Your task to perform on an android device: see tabs open on other devices in the chrome app Image 0: 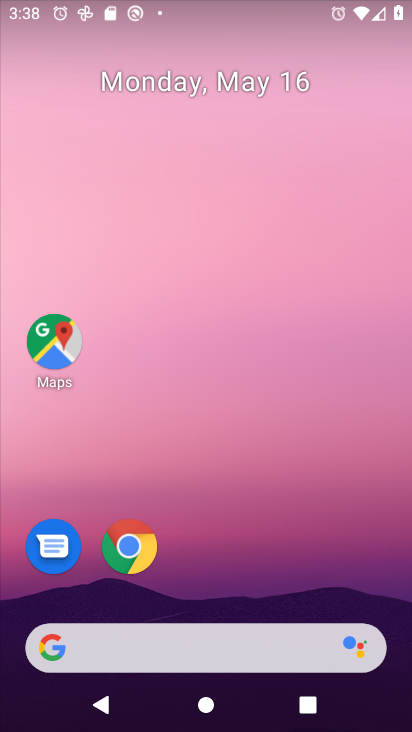
Step 0: drag from (342, 583) to (342, 163)
Your task to perform on an android device: see tabs open on other devices in the chrome app Image 1: 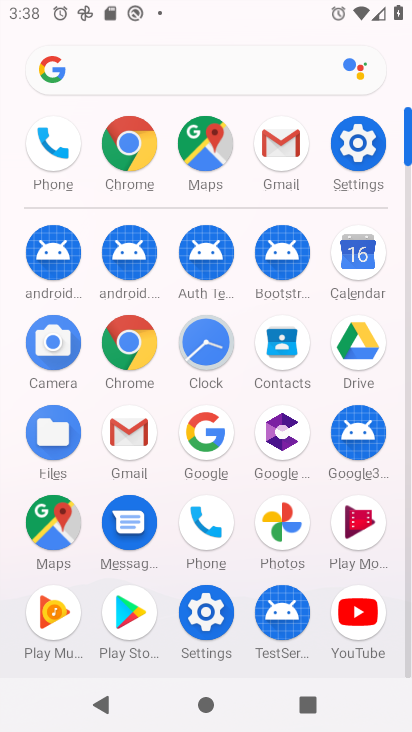
Step 1: click (134, 336)
Your task to perform on an android device: see tabs open on other devices in the chrome app Image 2: 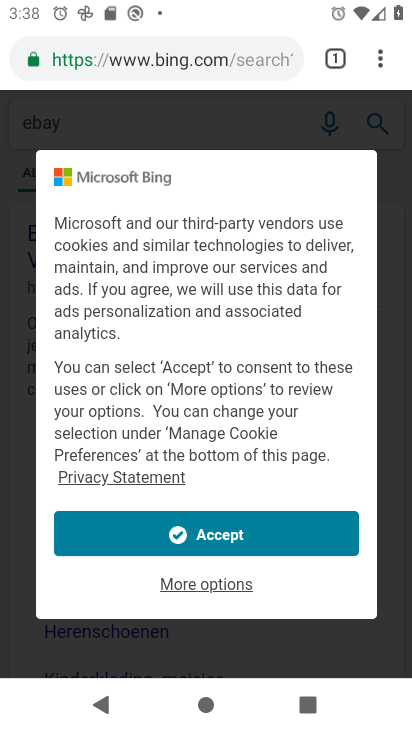
Step 2: click (382, 67)
Your task to perform on an android device: see tabs open on other devices in the chrome app Image 3: 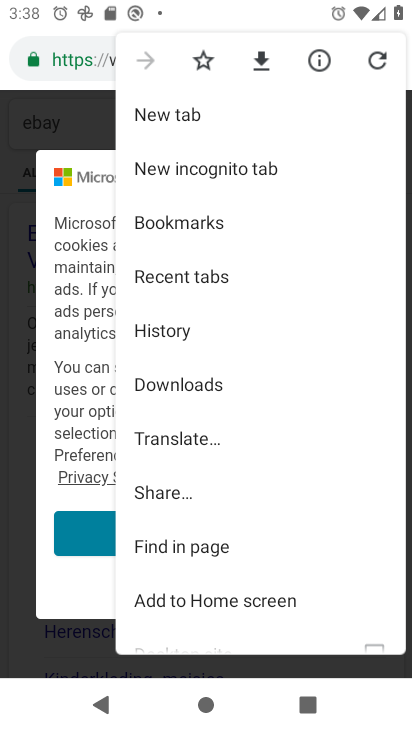
Step 3: click (210, 271)
Your task to perform on an android device: see tabs open on other devices in the chrome app Image 4: 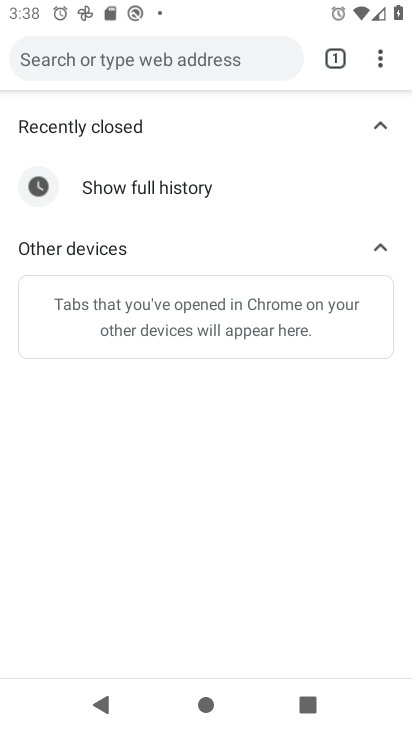
Step 4: click (337, 56)
Your task to perform on an android device: see tabs open on other devices in the chrome app Image 5: 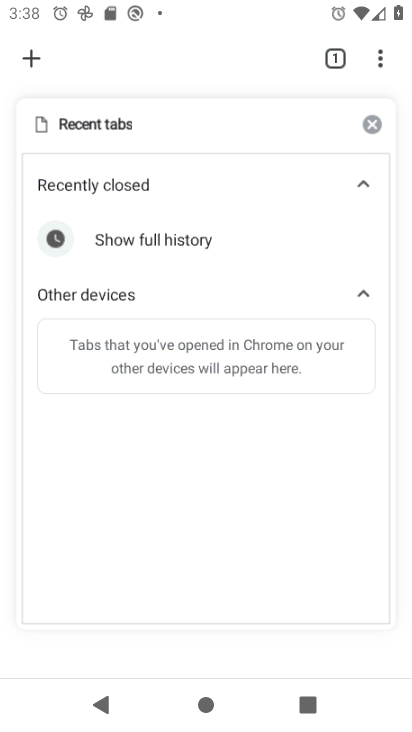
Step 5: task complete